Your task to perform on an android device: Search for pizza restaurants on Maps Image 0: 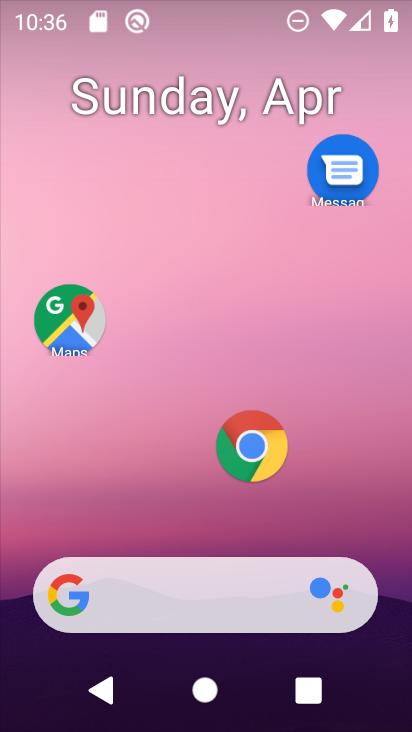
Step 0: drag from (246, 306) to (266, 218)
Your task to perform on an android device: Search for pizza restaurants on Maps Image 1: 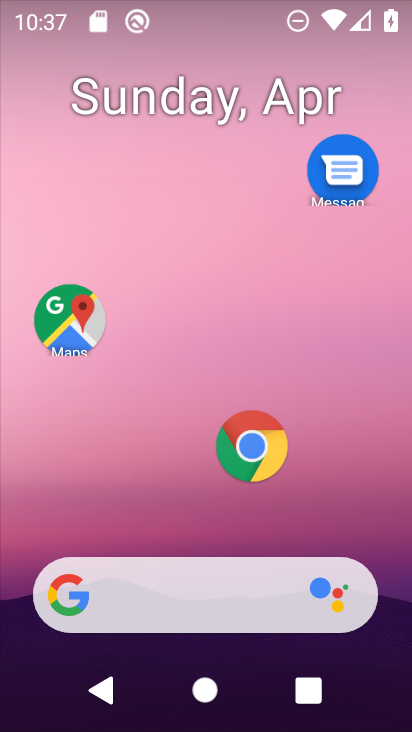
Step 1: drag from (206, 518) to (214, 38)
Your task to perform on an android device: Search for pizza restaurants on Maps Image 2: 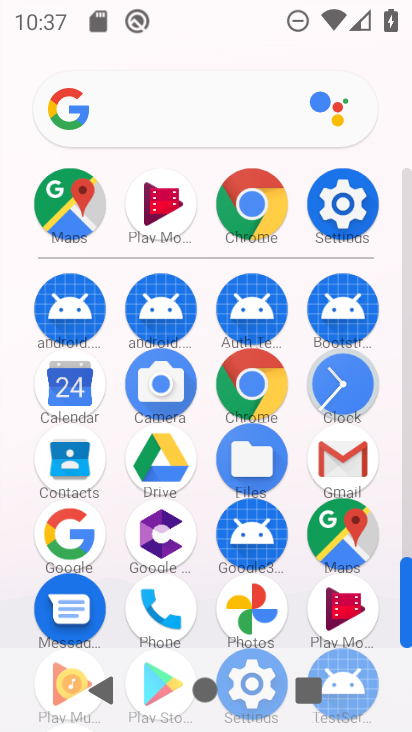
Step 2: click (335, 532)
Your task to perform on an android device: Search for pizza restaurants on Maps Image 3: 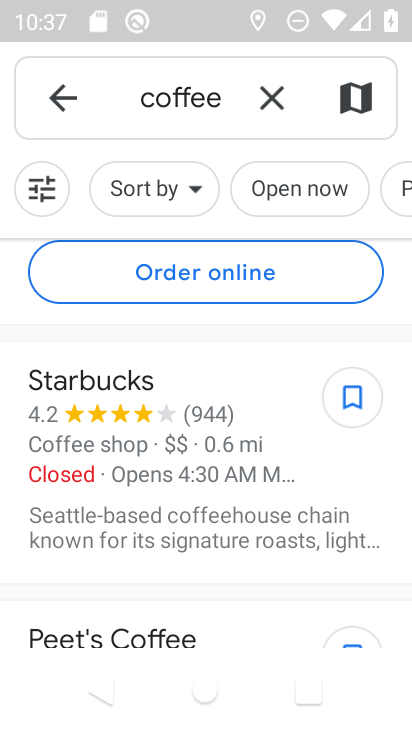
Step 3: click (270, 105)
Your task to perform on an android device: Search for pizza restaurants on Maps Image 4: 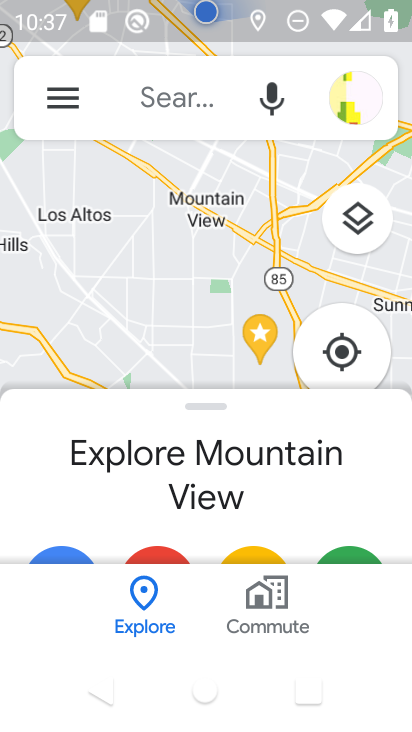
Step 4: click (151, 119)
Your task to perform on an android device: Search for pizza restaurants on Maps Image 5: 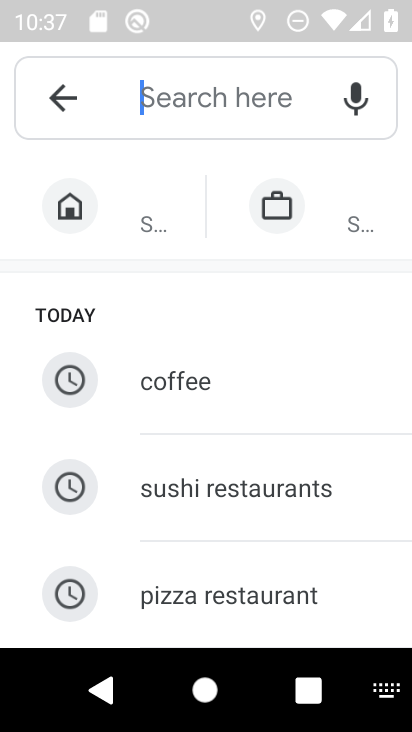
Step 5: click (215, 590)
Your task to perform on an android device: Search for pizza restaurants on Maps Image 6: 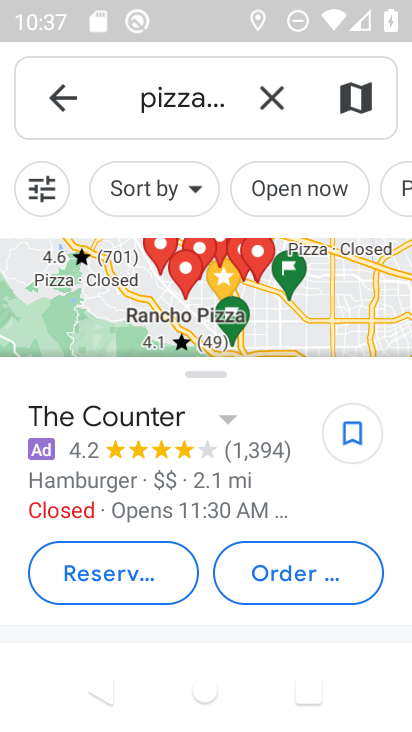
Step 6: task complete